Your task to perform on an android device: change keyboard looks Image 0: 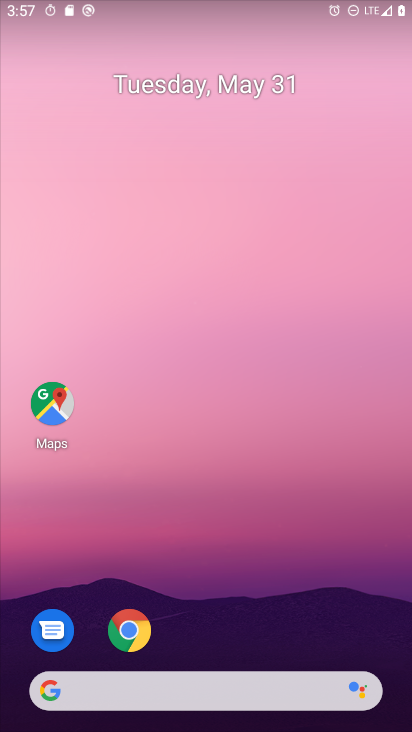
Step 0: drag from (145, 695) to (163, 16)
Your task to perform on an android device: change keyboard looks Image 1: 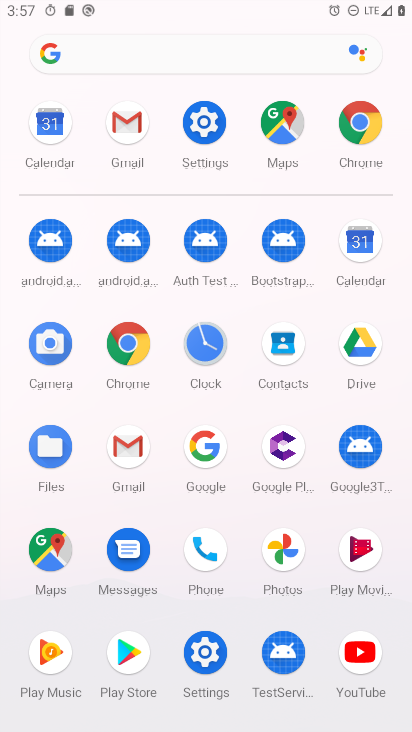
Step 1: click (211, 128)
Your task to perform on an android device: change keyboard looks Image 2: 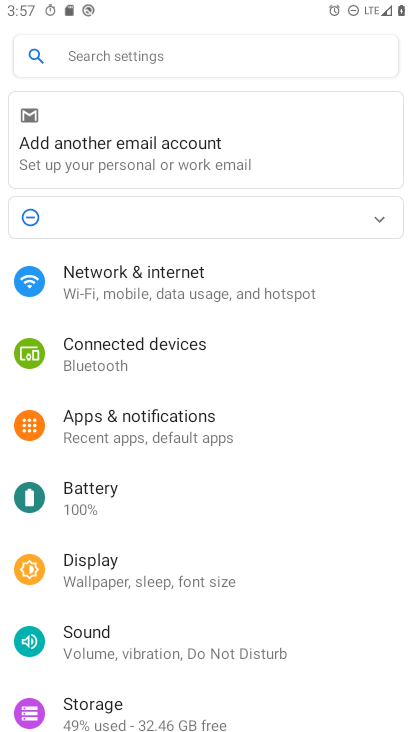
Step 2: drag from (240, 681) to (346, 20)
Your task to perform on an android device: change keyboard looks Image 3: 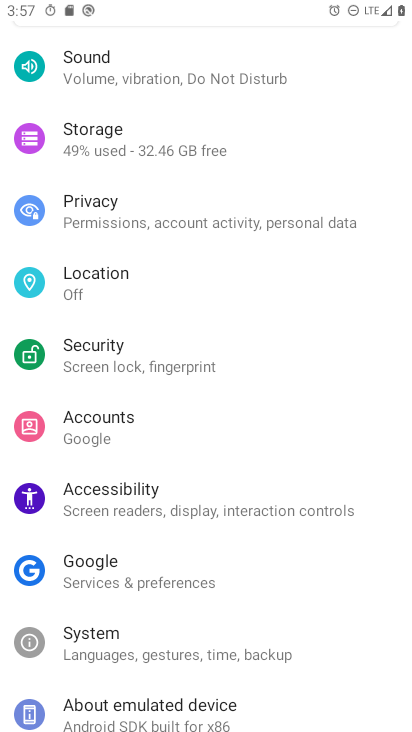
Step 3: click (169, 655)
Your task to perform on an android device: change keyboard looks Image 4: 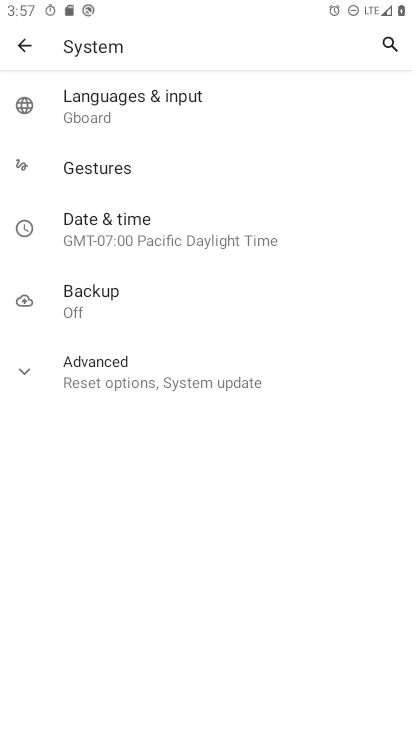
Step 4: click (183, 97)
Your task to perform on an android device: change keyboard looks Image 5: 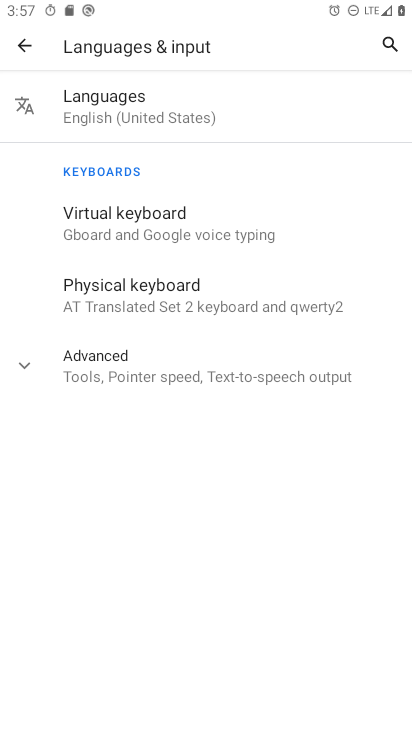
Step 5: click (140, 221)
Your task to perform on an android device: change keyboard looks Image 6: 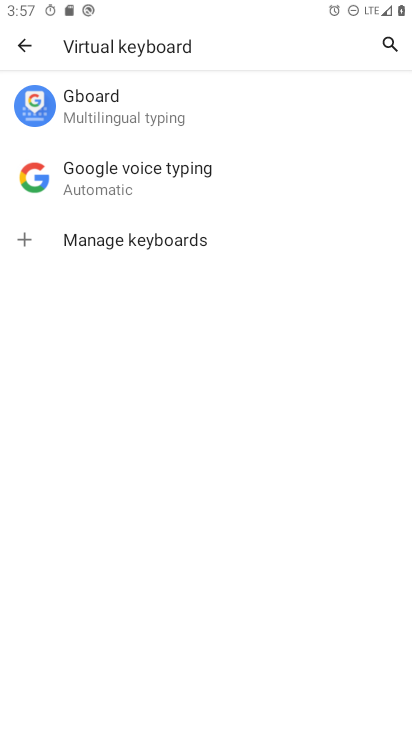
Step 6: click (149, 116)
Your task to perform on an android device: change keyboard looks Image 7: 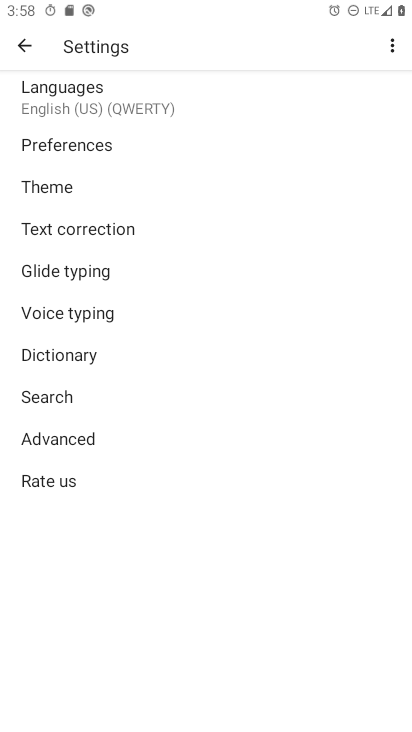
Step 7: click (80, 190)
Your task to perform on an android device: change keyboard looks Image 8: 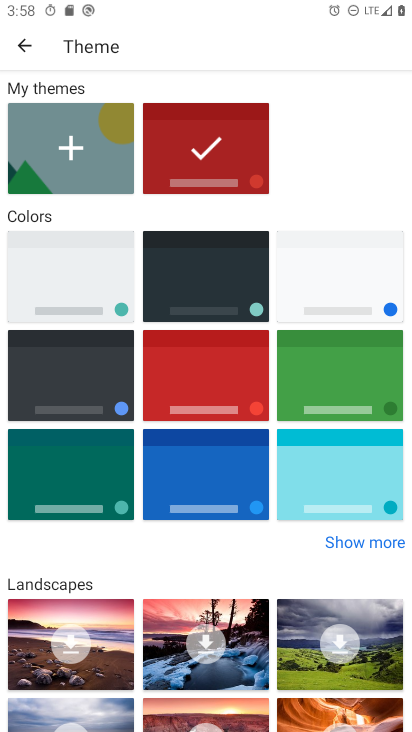
Step 8: click (216, 291)
Your task to perform on an android device: change keyboard looks Image 9: 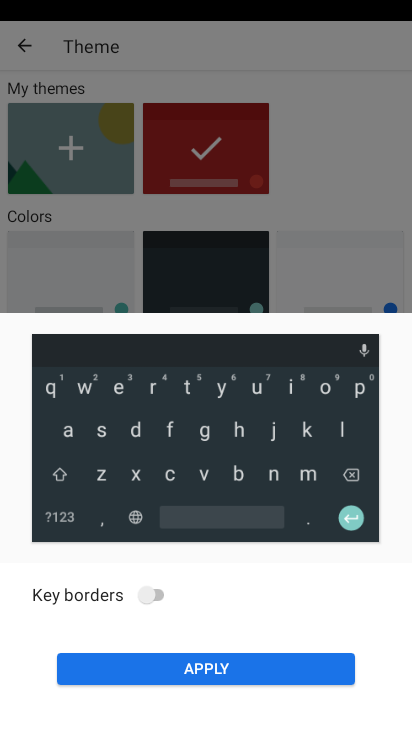
Step 9: click (200, 677)
Your task to perform on an android device: change keyboard looks Image 10: 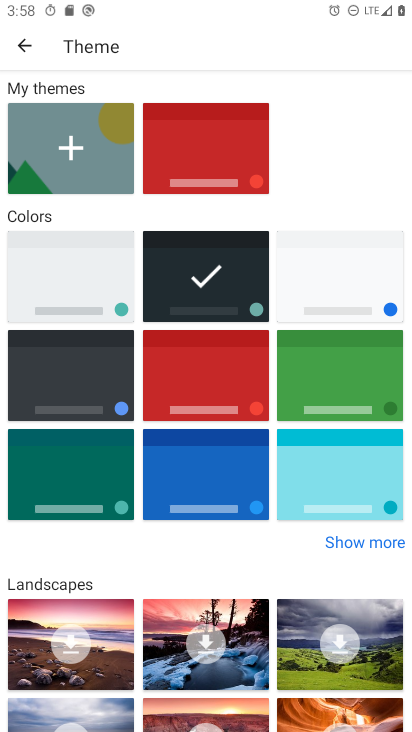
Step 10: task complete